Your task to perform on an android device: turn notification dots on Image 0: 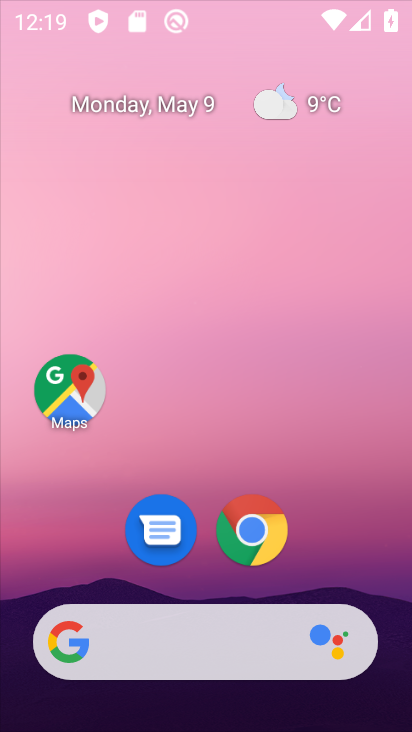
Step 0: drag from (362, 462) to (364, 268)
Your task to perform on an android device: turn notification dots on Image 1: 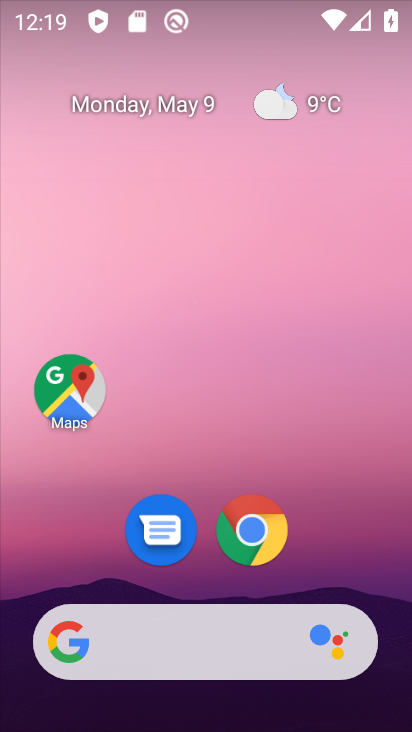
Step 1: drag from (345, 542) to (345, 182)
Your task to perform on an android device: turn notification dots on Image 2: 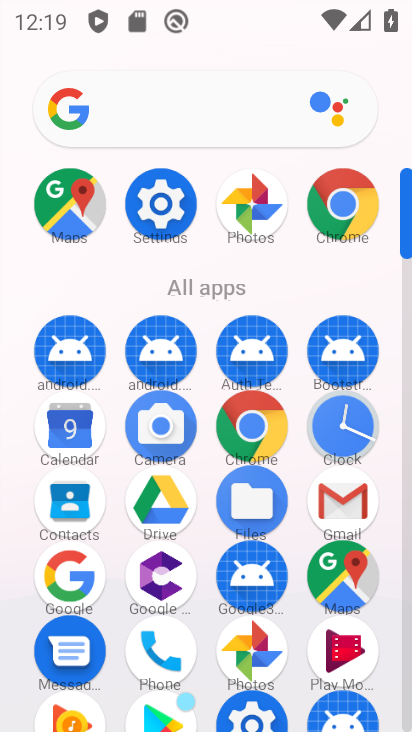
Step 2: click (138, 205)
Your task to perform on an android device: turn notification dots on Image 3: 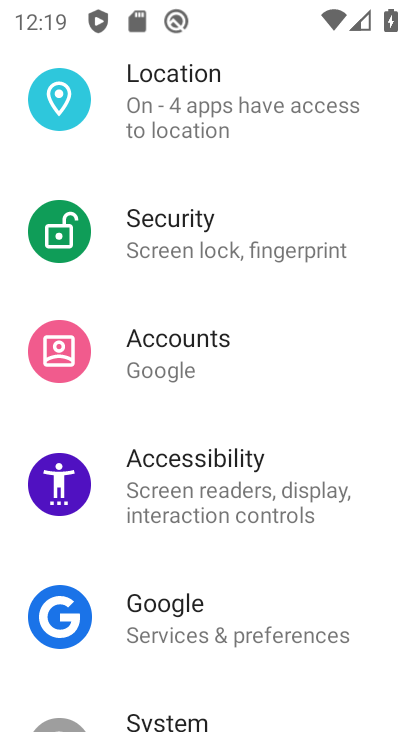
Step 3: drag from (235, 150) to (251, 620)
Your task to perform on an android device: turn notification dots on Image 4: 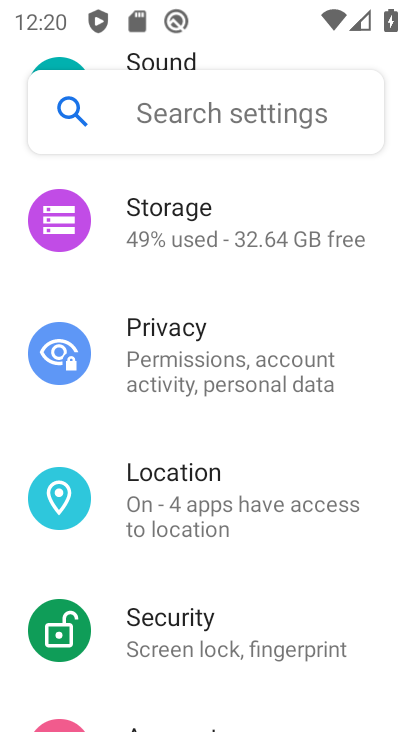
Step 4: click (207, 136)
Your task to perform on an android device: turn notification dots on Image 5: 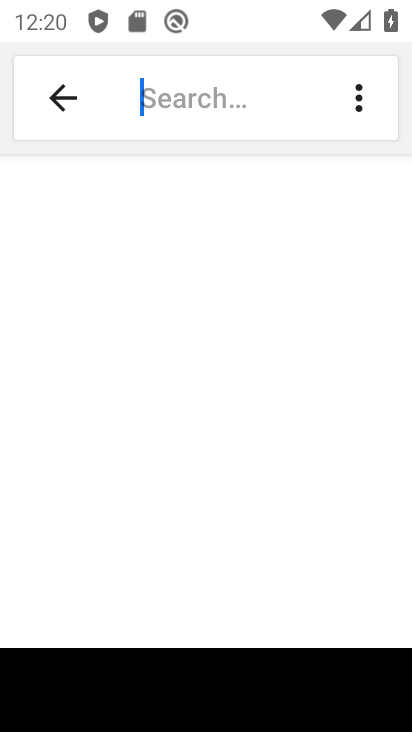
Step 5: click (227, 98)
Your task to perform on an android device: turn notification dots on Image 6: 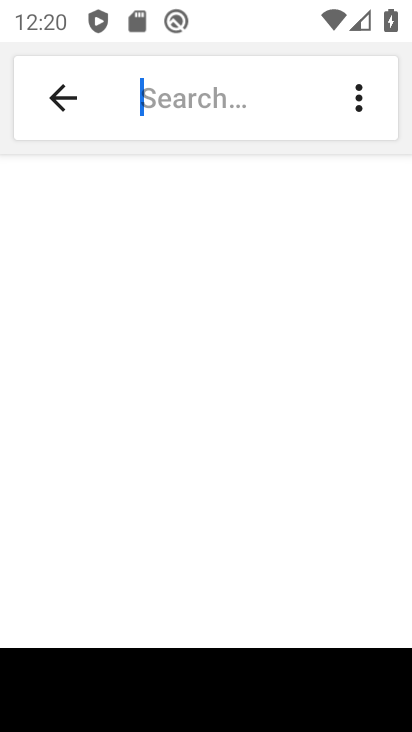
Step 6: click (187, 93)
Your task to perform on an android device: turn notification dots on Image 7: 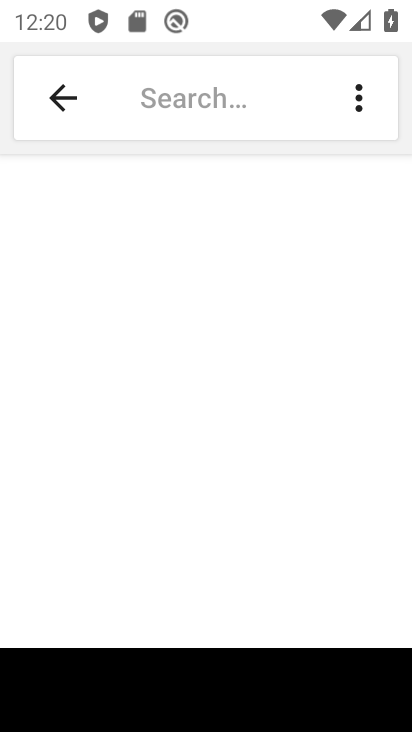
Step 7: type "notification dots"
Your task to perform on an android device: turn notification dots on Image 8: 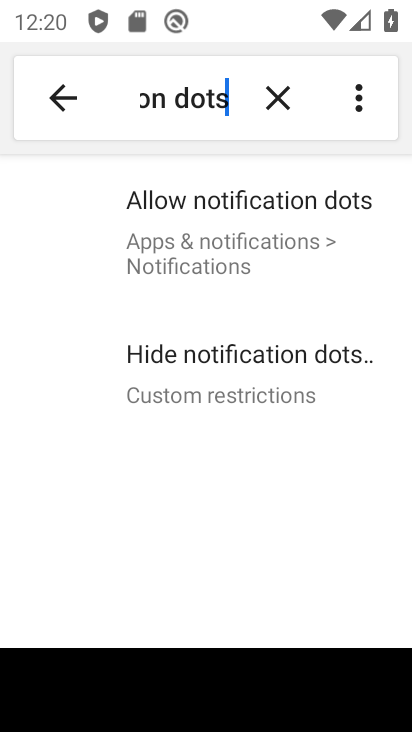
Step 8: click (281, 215)
Your task to perform on an android device: turn notification dots on Image 9: 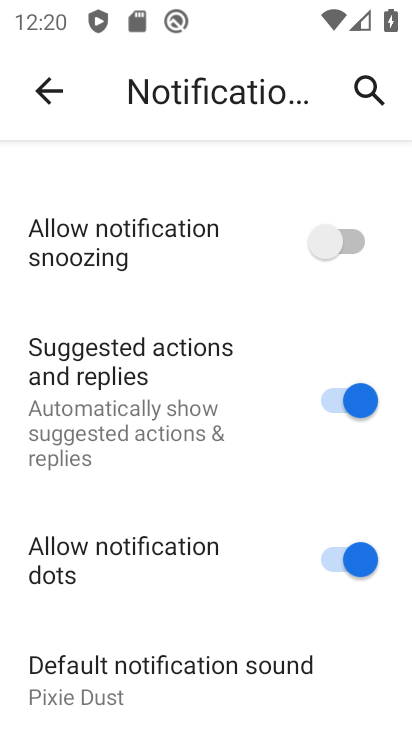
Step 9: task complete